Your task to perform on an android device: Search for pizza restaurants on Maps Image 0: 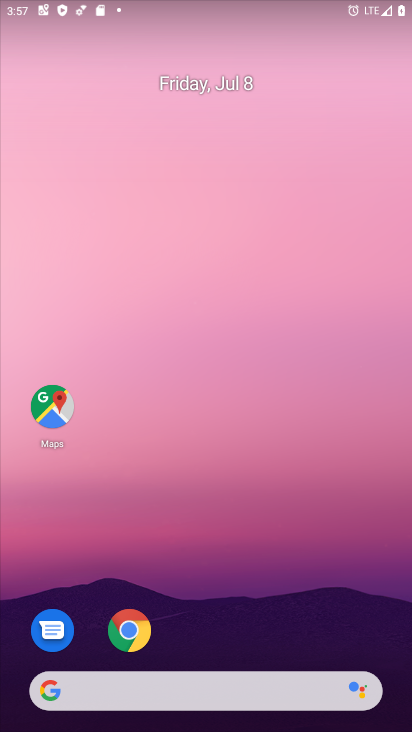
Step 0: click (55, 407)
Your task to perform on an android device: Search for pizza restaurants on Maps Image 1: 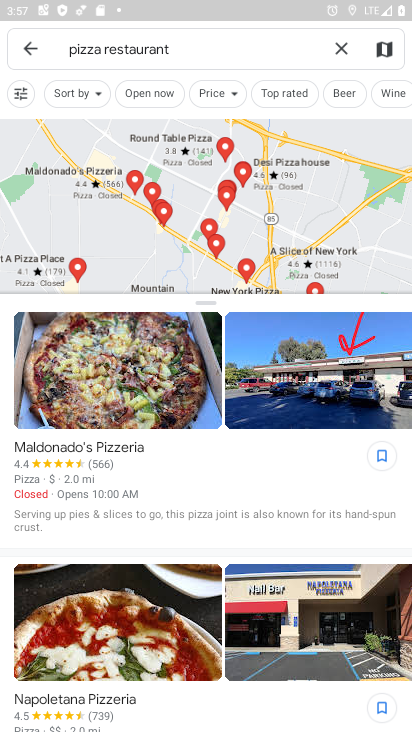
Step 1: task complete